Your task to perform on an android device: choose inbox layout in the gmail app Image 0: 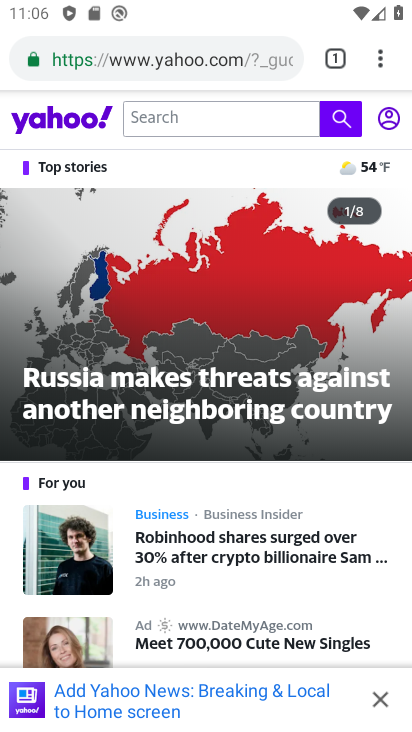
Step 0: press home button
Your task to perform on an android device: choose inbox layout in the gmail app Image 1: 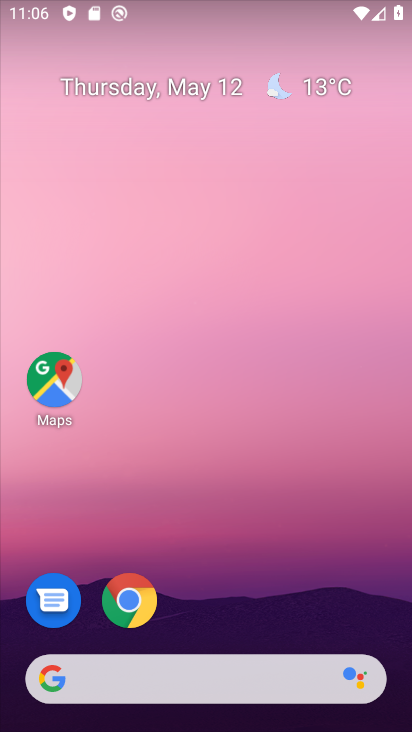
Step 1: drag from (385, 617) to (323, 126)
Your task to perform on an android device: choose inbox layout in the gmail app Image 2: 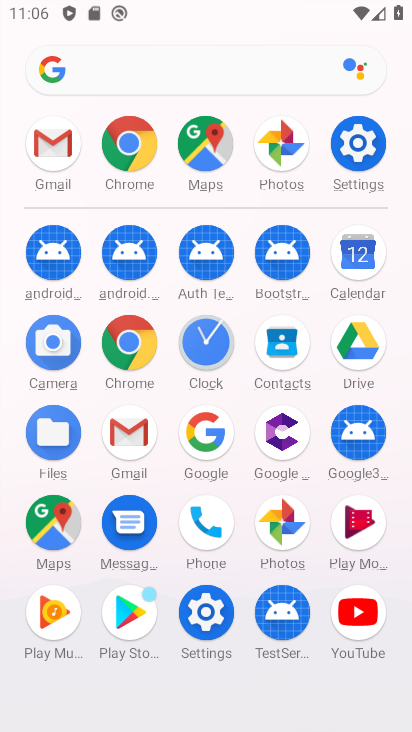
Step 2: click (121, 432)
Your task to perform on an android device: choose inbox layout in the gmail app Image 3: 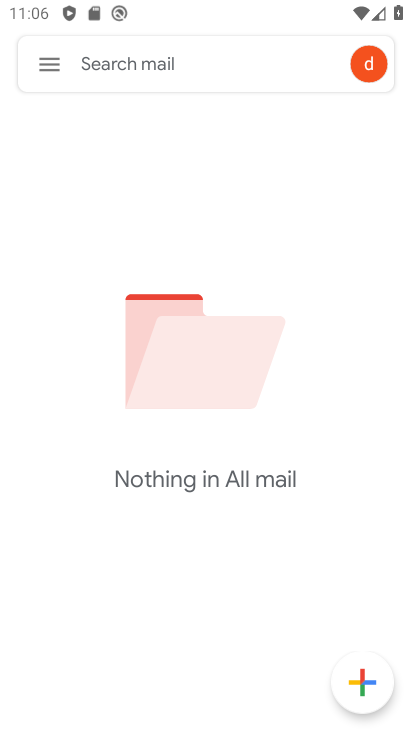
Step 3: click (38, 52)
Your task to perform on an android device: choose inbox layout in the gmail app Image 4: 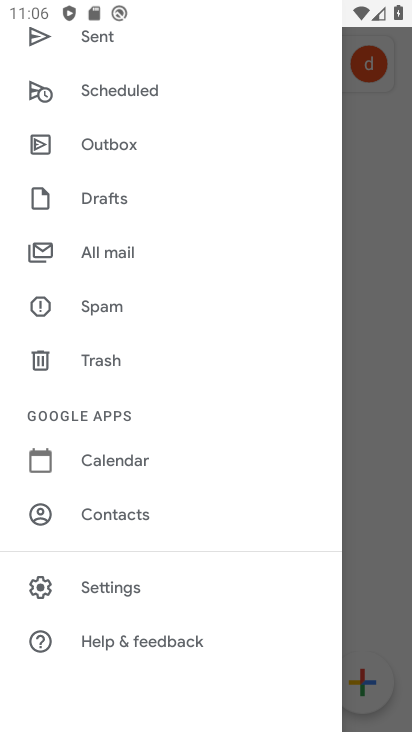
Step 4: click (131, 580)
Your task to perform on an android device: choose inbox layout in the gmail app Image 5: 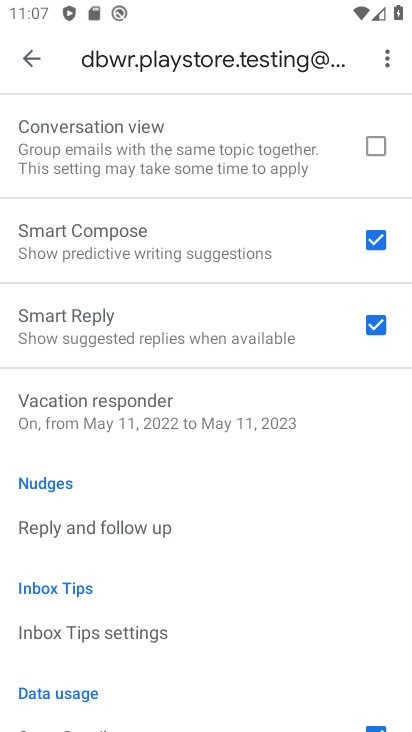
Step 5: drag from (302, 232) to (322, 488)
Your task to perform on an android device: choose inbox layout in the gmail app Image 6: 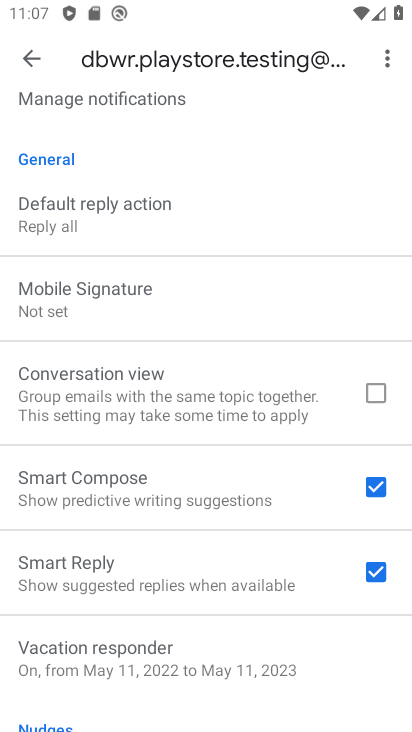
Step 6: drag from (317, 297) to (295, 491)
Your task to perform on an android device: choose inbox layout in the gmail app Image 7: 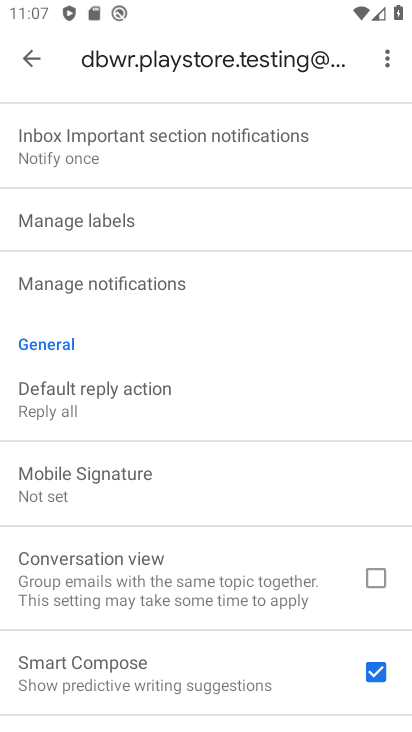
Step 7: drag from (251, 207) to (279, 577)
Your task to perform on an android device: choose inbox layout in the gmail app Image 8: 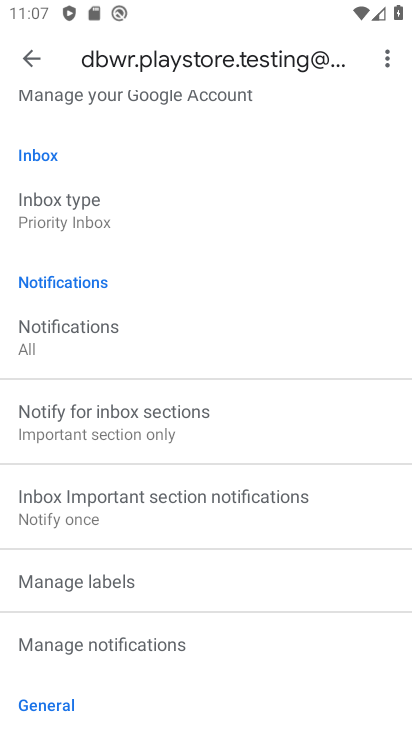
Step 8: click (57, 206)
Your task to perform on an android device: choose inbox layout in the gmail app Image 9: 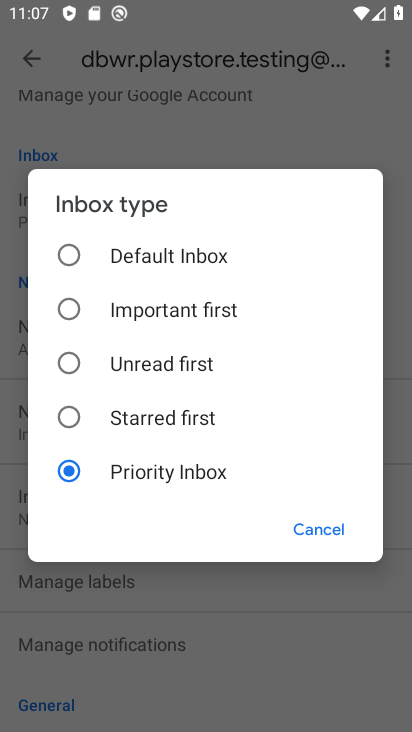
Step 9: click (68, 251)
Your task to perform on an android device: choose inbox layout in the gmail app Image 10: 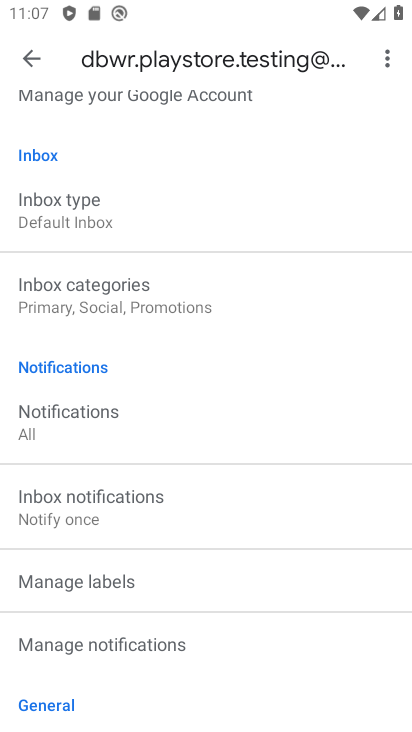
Step 10: task complete